Your task to perform on an android device: move an email to a new category in the gmail app Image 0: 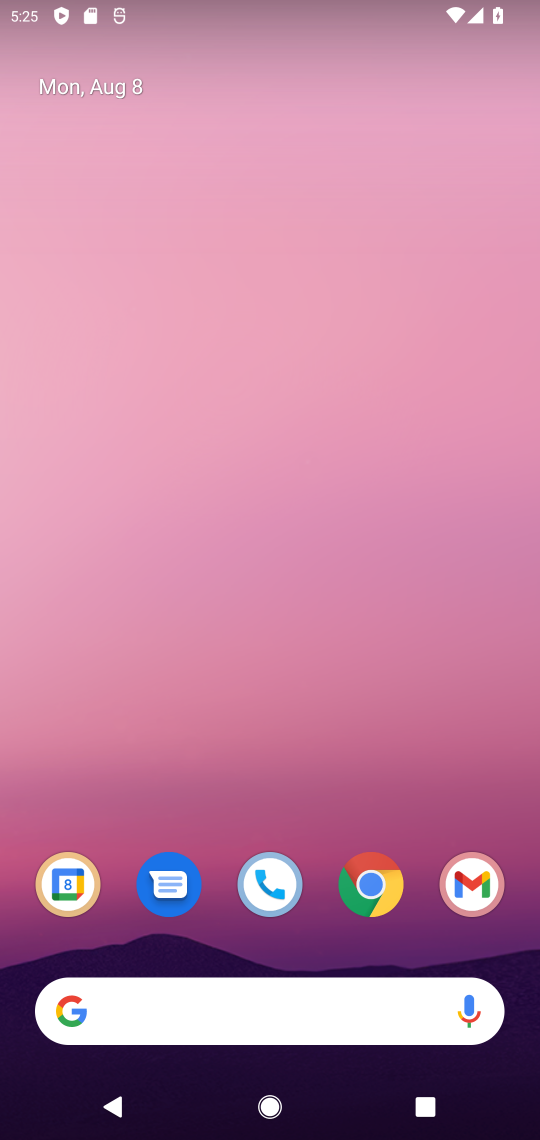
Step 0: drag from (426, 798) to (296, 50)
Your task to perform on an android device: move an email to a new category in the gmail app Image 1: 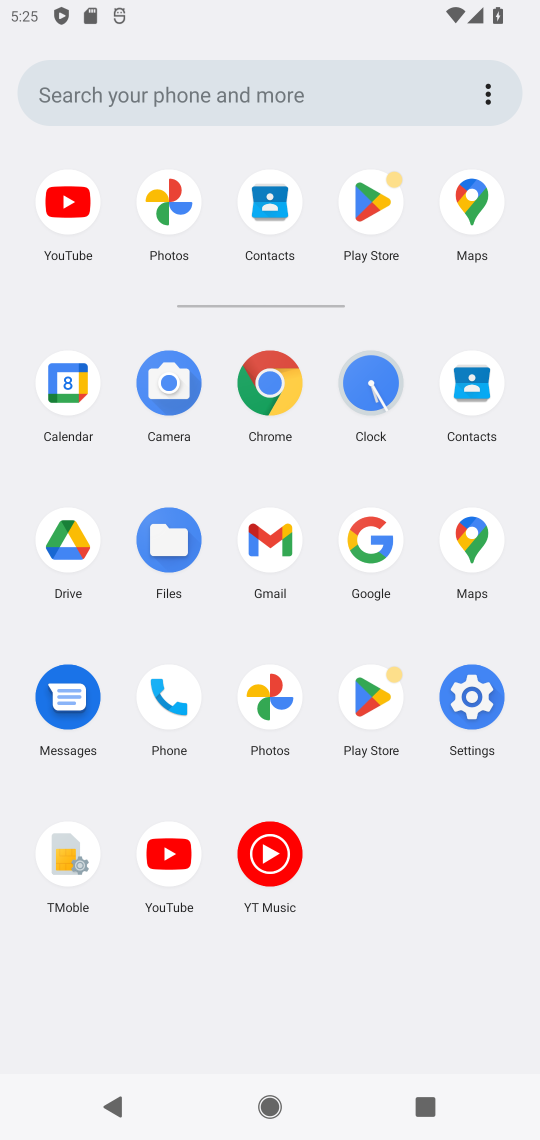
Step 1: click (280, 530)
Your task to perform on an android device: move an email to a new category in the gmail app Image 2: 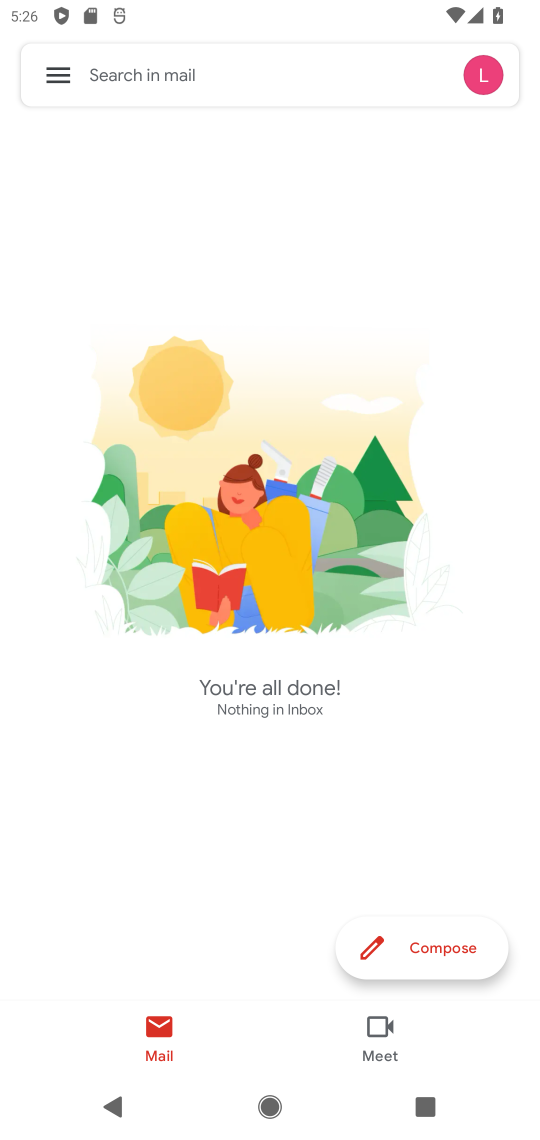
Step 2: task complete